Your task to perform on an android device: turn off picture-in-picture Image 0: 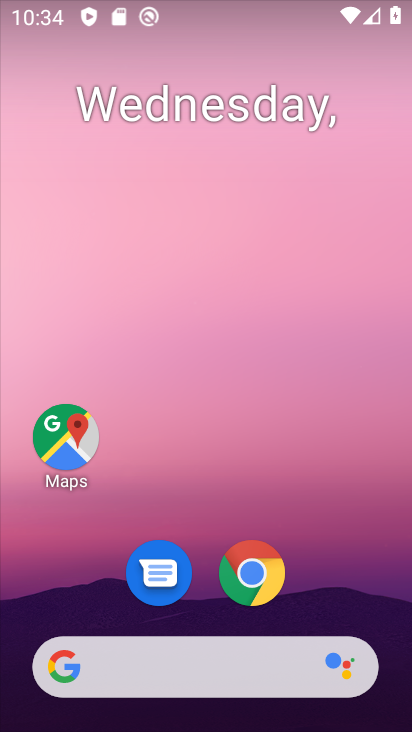
Step 0: click (252, 575)
Your task to perform on an android device: turn off picture-in-picture Image 1: 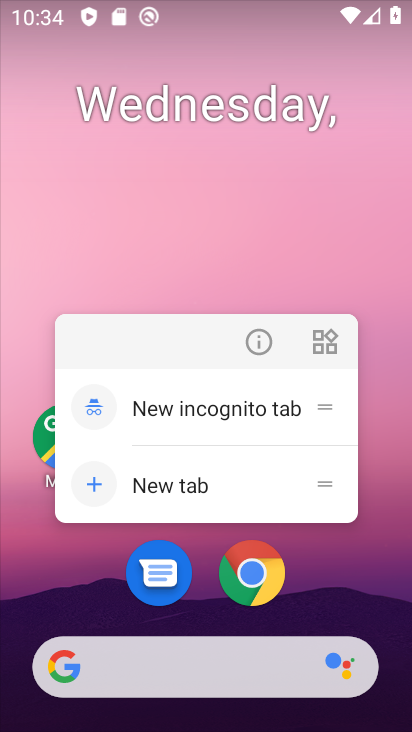
Step 1: click (258, 344)
Your task to perform on an android device: turn off picture-in-picture Image 2: 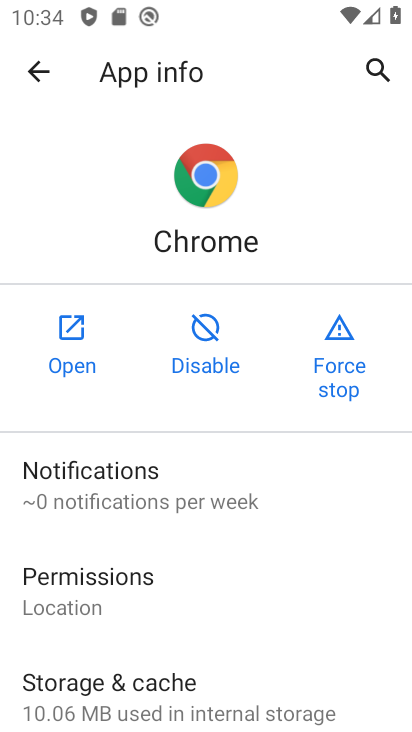
Step 2: drag from (249, 565) to (269, 337)
Your task to perform on an android device: turn off picture-in-picture Image 3: 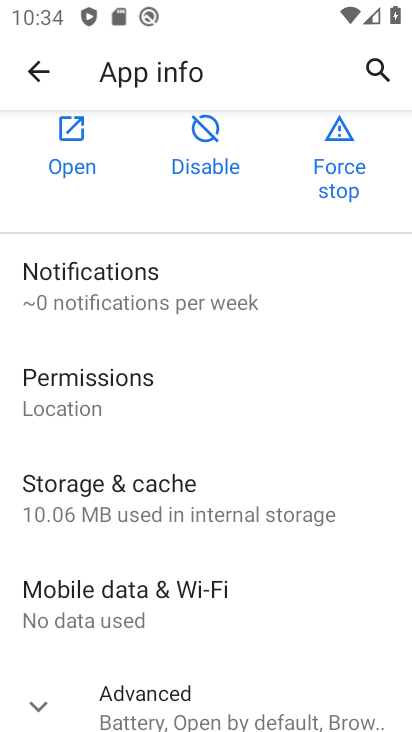
Step 3: drag from (250, 627) to (256, 441)
Your task to perform on an android device: turn off picture-in-picture Image 4: 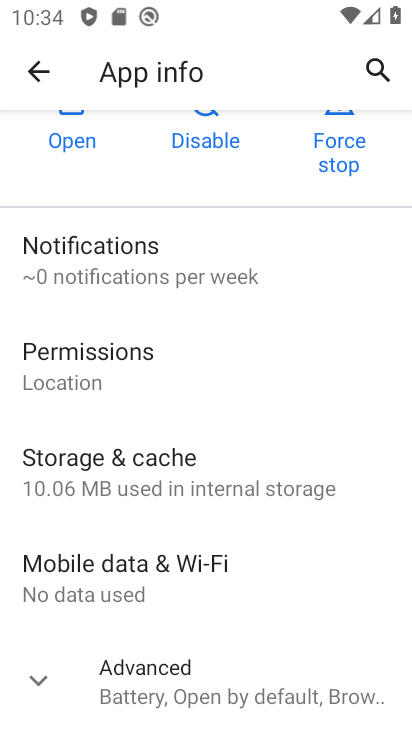
Step 4: click (232, 704)
Your task to perform on an android device: turn off picture-in-picture Image 5: 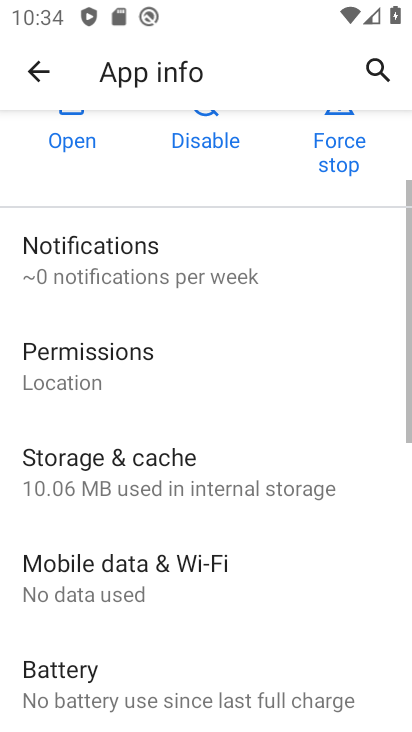
Step 5: drag from (218, 656) to (215, 415)
Your task to perform on an android device: turn off picture-in-picture Image 6: 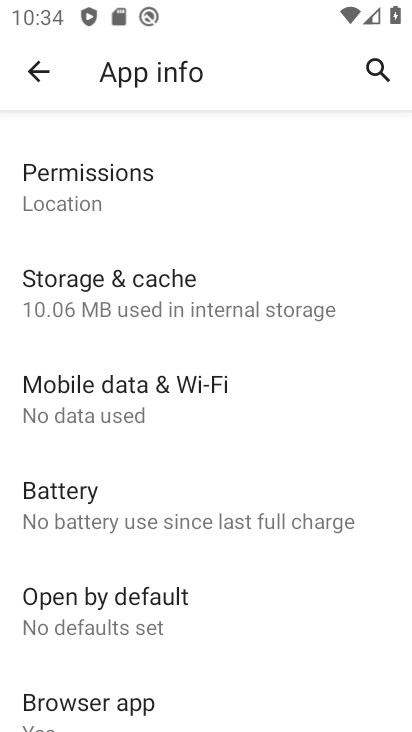
Step 6: drag from (237, 646) to (245, 471)
Your task to perform on an android device: turn off picture-in-picture Image 7: 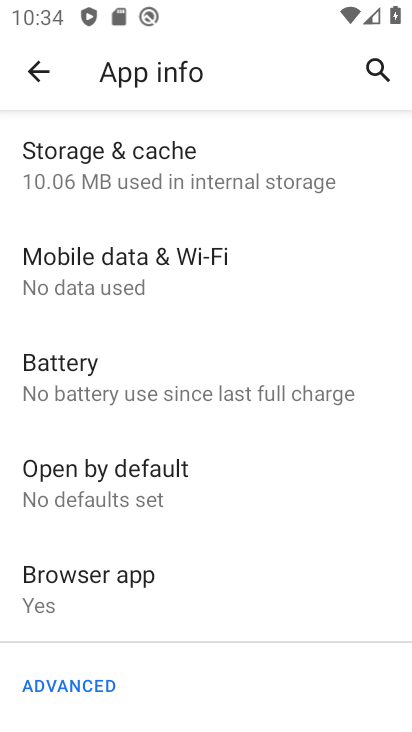
Step 7: drag from (198, 658) to (194, 506)
Your task to perform on an android device: turn off picture-in-picture Image 8: 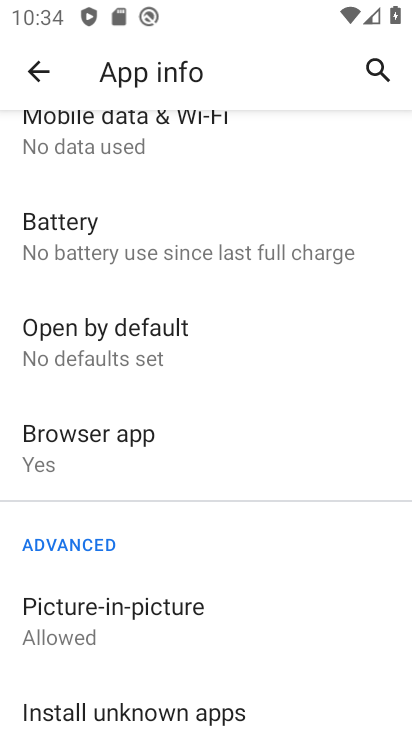
Step 8: click (119, 606)
Your task to perform on an android device: turn off picture-in-picture Image 9: 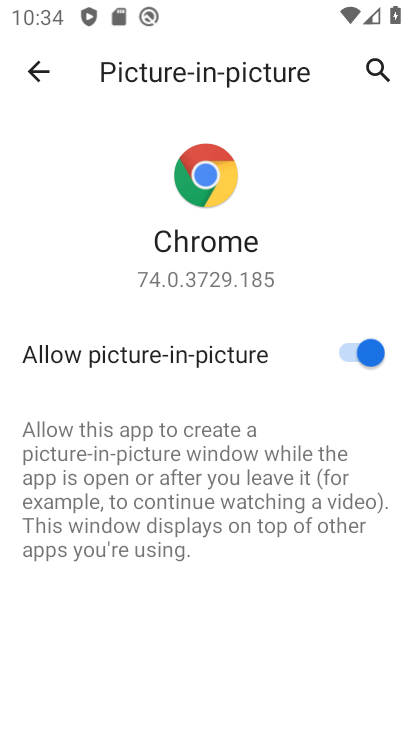
Step 9: click (370, 349)
Your task to perform on an android device: turn off picture-in-picture Image 10: 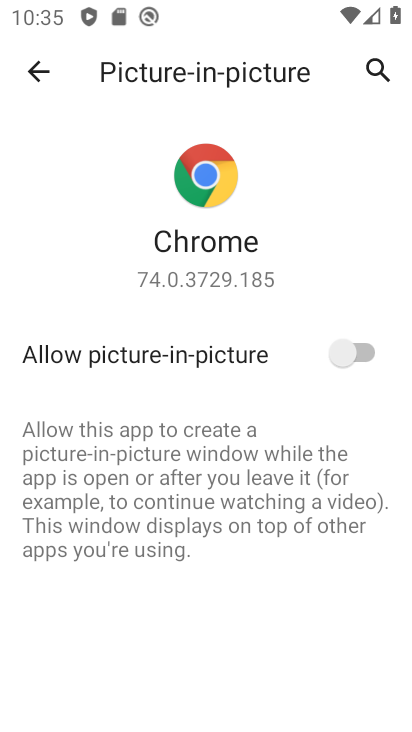
Step 10: task complete